Your task to perform on an android device: Open accessibility settings Image 0: 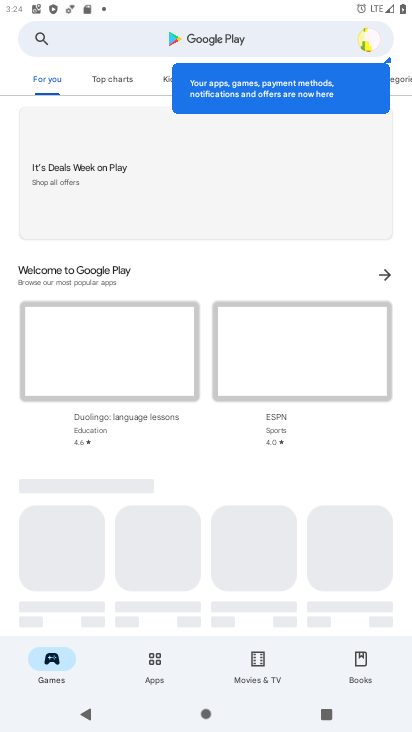
Step 0: press home button
Your task to perform on an android device: Open accessibility settings Image 1: 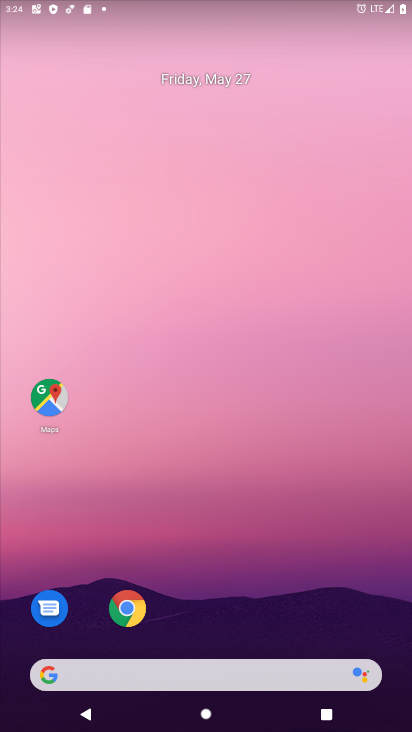
Step 1: drag from (211, 557) to (221, 263)
Your task to perform on an android device: Open accessibility settings Image 2: 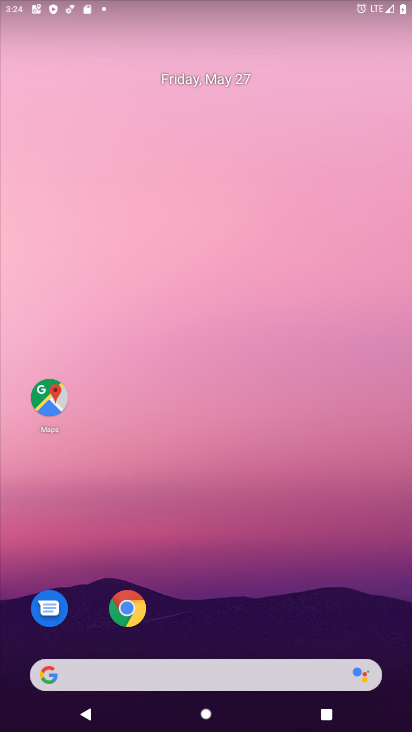
Step 2: drag from (236, 654) to (247, 229)
Your task to perform on an android device: Open accessibility settings Image 3: 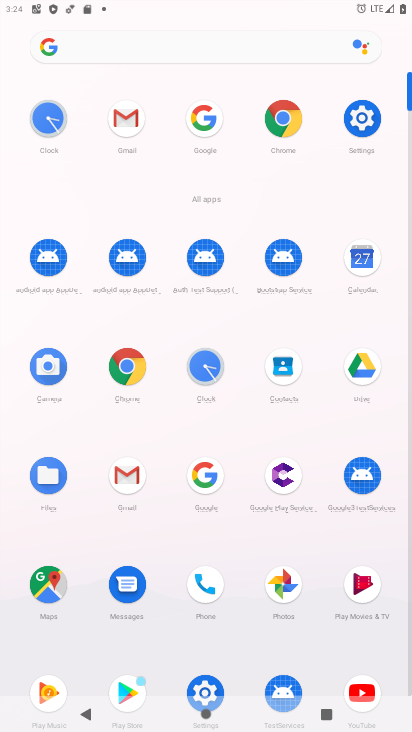
Step 3: click (359, 129)
Your task to perform on an android device: Open accessibility settings Image 4: 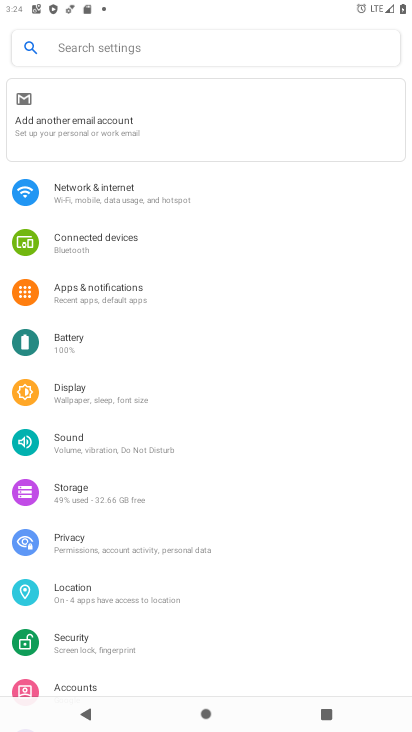
Step 4: drag from (111, 676) to (113, 281)
Your task to perform on an android device: Open accessibility settings Image 5: 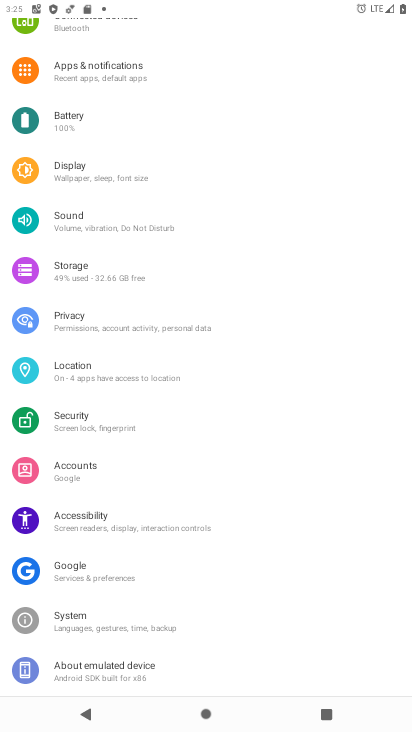
Step 5: click (94, 525)
Your task to perform on an android device: Open accessibility settings Image 6: 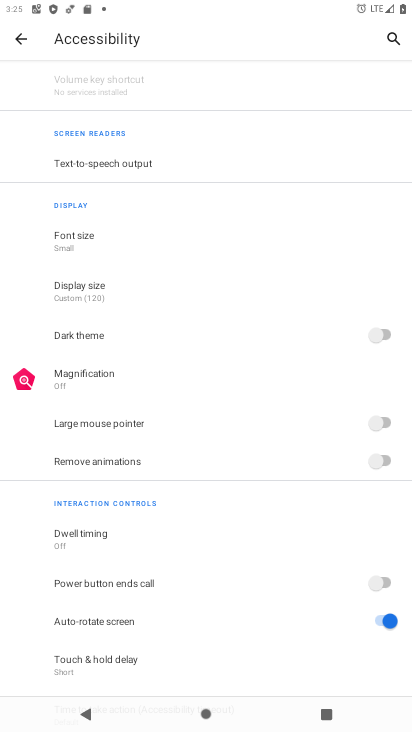
Step 6: task complete